Your task to perform on an android device: visit the assistant section in the google photos Image 0: 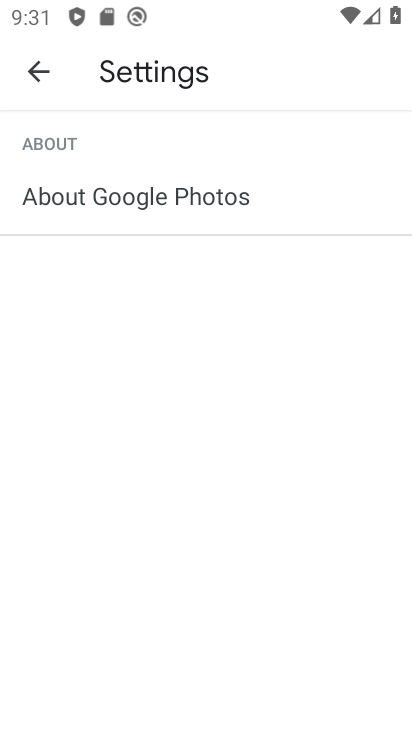
Step 0: press home button
Your task to perform on an android device: visit the assistant section in the google photos Image 1: 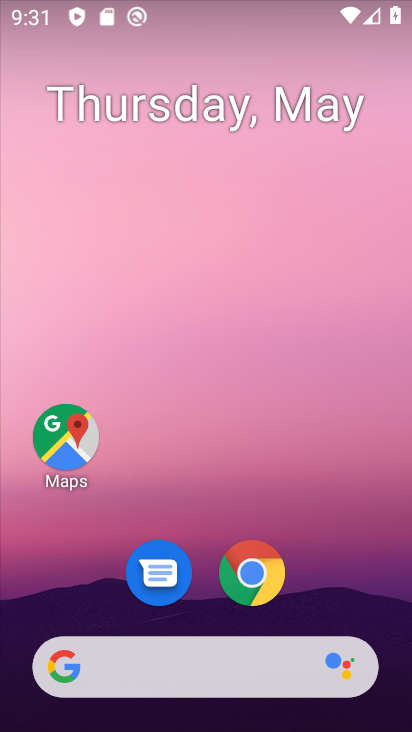
Step 1: drag from (199, 603) to (188, 236)
Your task to perform on an android device: visit the assistant section in the google photos Image 2: 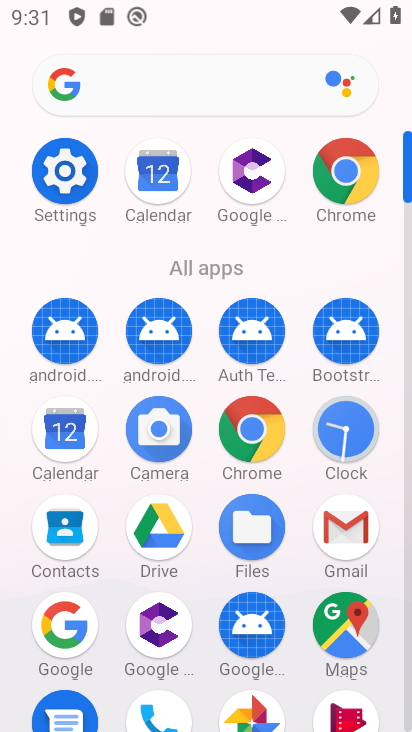
Step 2: drag from (112, 643) to (117, 411)
Your task to perform on an android device: visit the assistant section in the google photos Image 3: 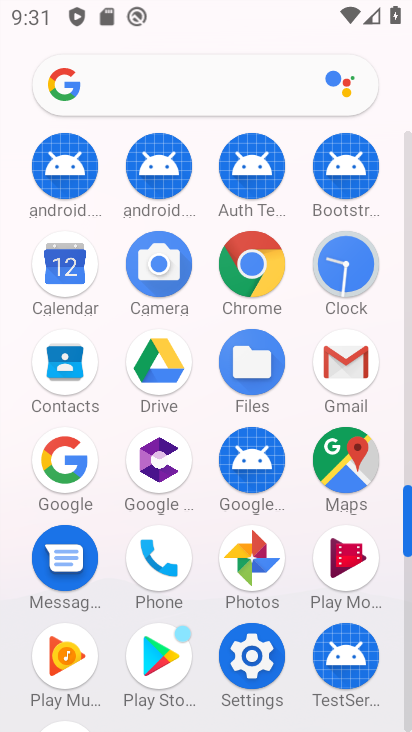
Step 3: click (230, 545)
Your task to perform on an android device: visit the assistant section in the google photos Image 4: 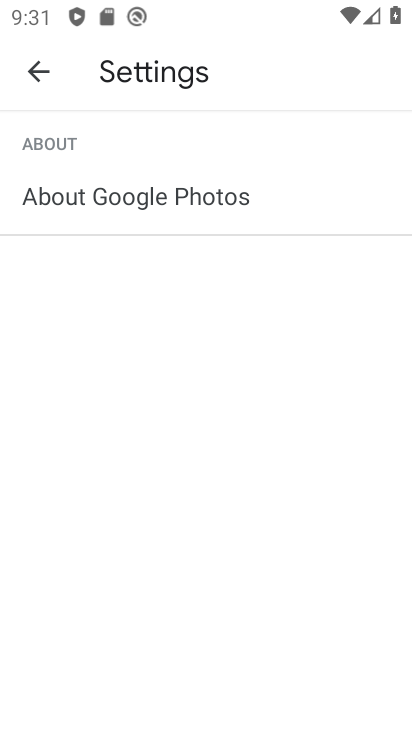
Step 4: click (44, 76)
Your task to perform on an android device: visit the assistant section in the google photos Image 5: 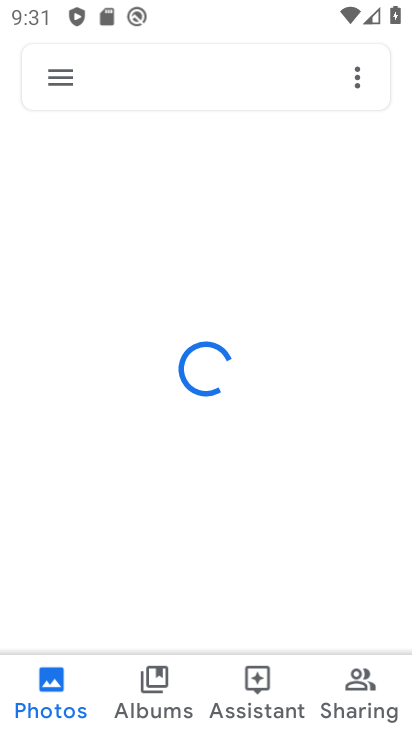
Step 5: click (258, 702)
Your task to perform on an android device: visit the assistant section in the google photos Image 6: 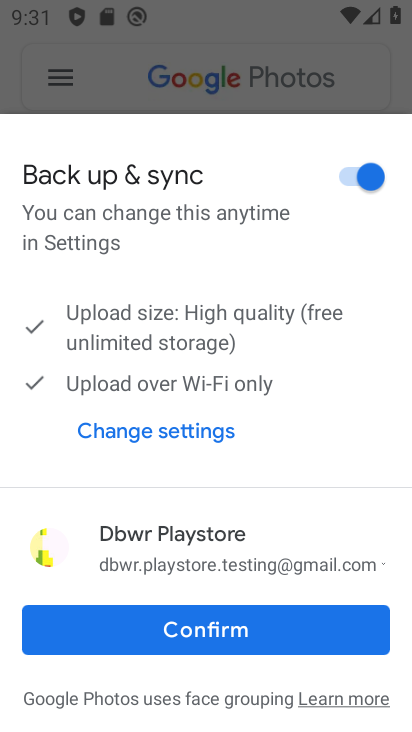
Step 6: click (250, 635)
Your task to perform on an android device: visit the assistant section in the google photos Image 7: 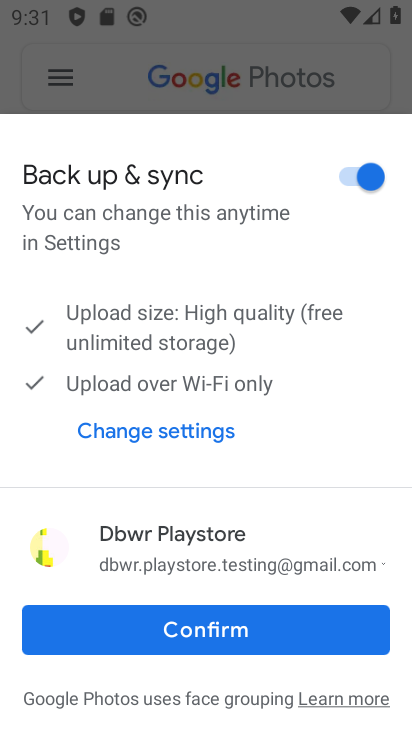
Step 7: click (250, 635)
Your task to perform on an android device: visit the assistant section in the google photos Image 8: 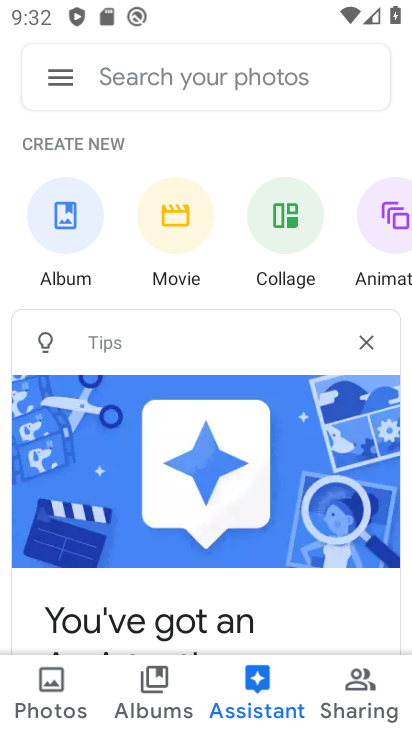
Step 8: task complete